Your task to perform on an android device: toggle wifi Image 0: 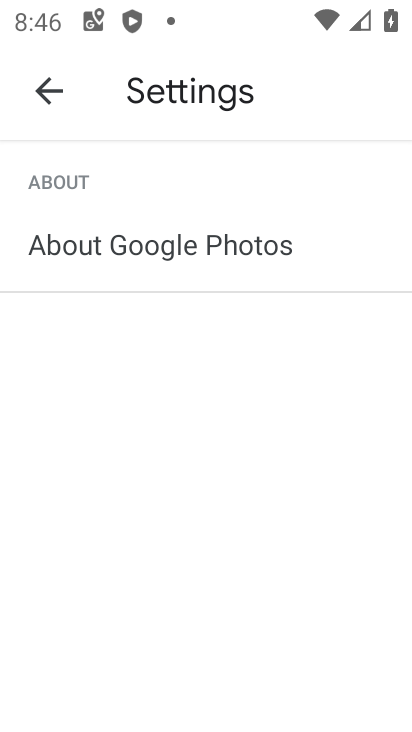
Step 0: press home button
Your task to perform on an android device: toggle wifi Image 1: 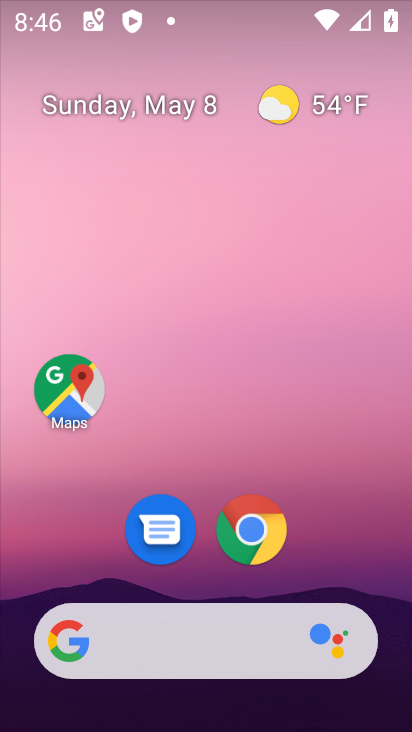
Step 1: drag from (348, 339) to (348, 44)
Your task to perform on an android device: toggle wifi Image 2: 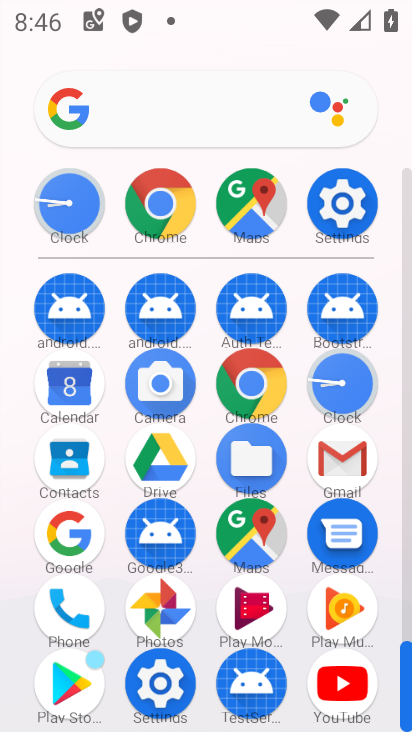
Step 2: click (352, 208)
Your task to perform on an android device: toggle wifi Image 3: 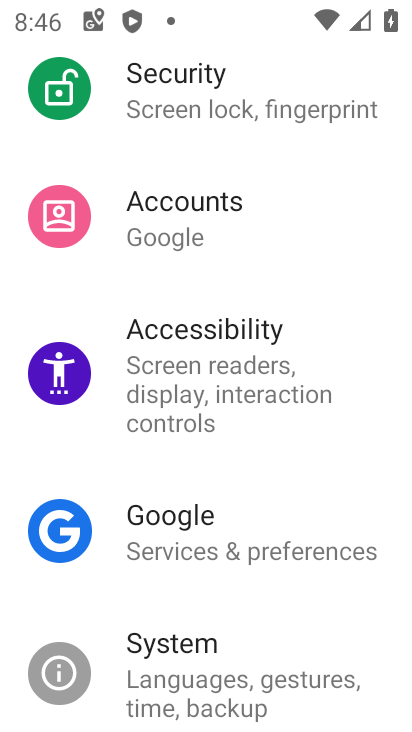
Step 3: drag from (352, 208) to (312, 599)
Your task to perform on an android device: toggle wifi Image 4: 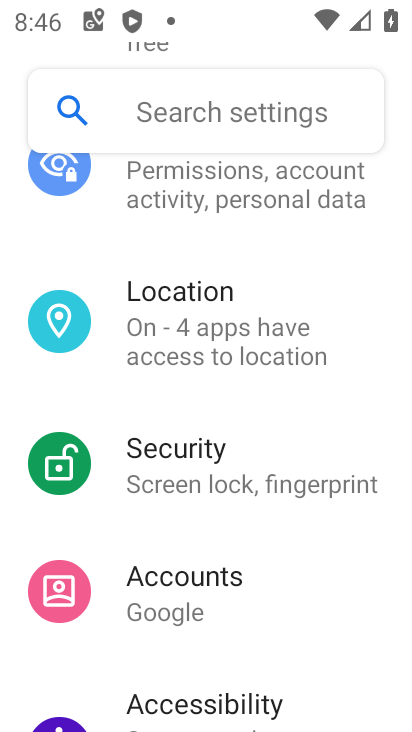
Step 4: drag from (300, 277) to (317, 582)
Your task to perform on an android device: toggle wifi Image 5: 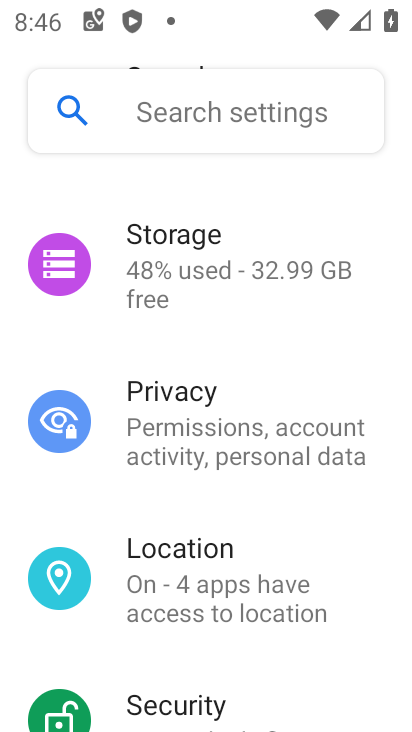
Step 5: drag from (314, 358) to (323, 693)
Your task to perform on an android device: toggle wifi Image 6: 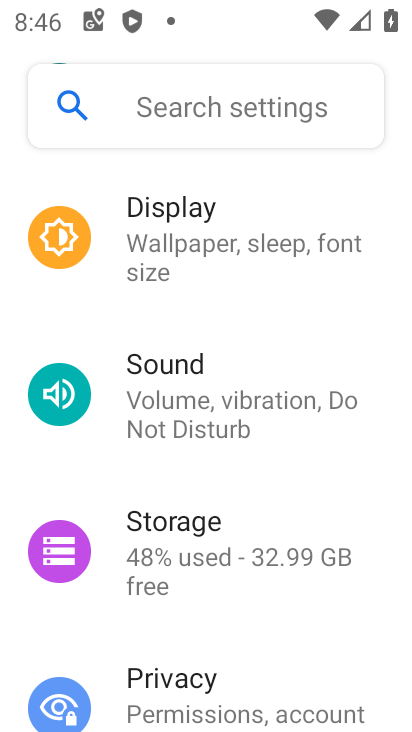
Step 6: drag from (333, 354) to (253, 652)
Your task to perform on an android device: toggle wifi Image 7: 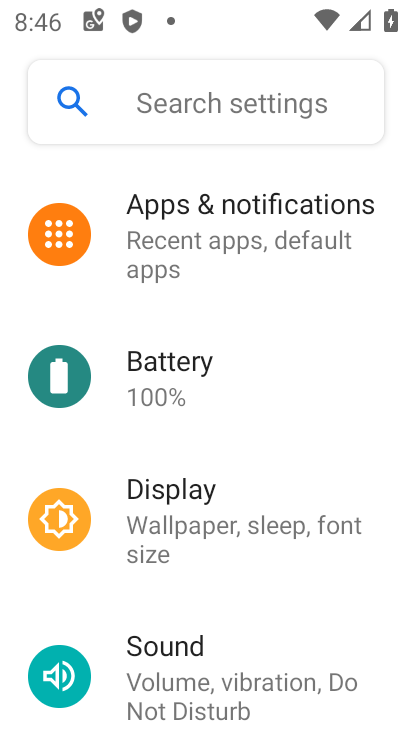
Step 7: drag from (310, 340) to (247, 612)
Your task to perform on an android device: toggle wifi Image 8: 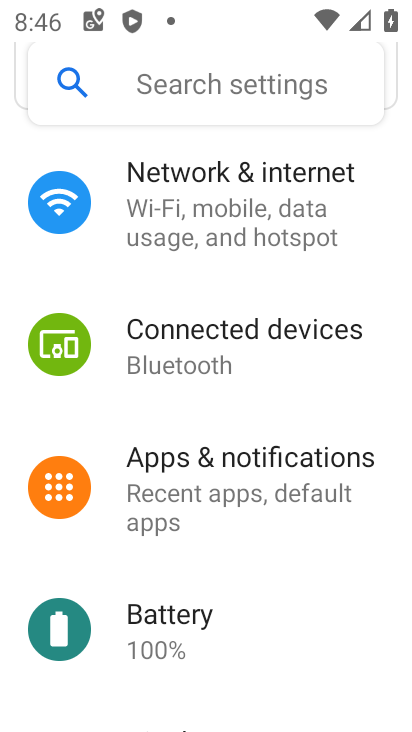
Step 8: click (305, 216)
Your task to perform on an android device: toggle wifi Image 9: 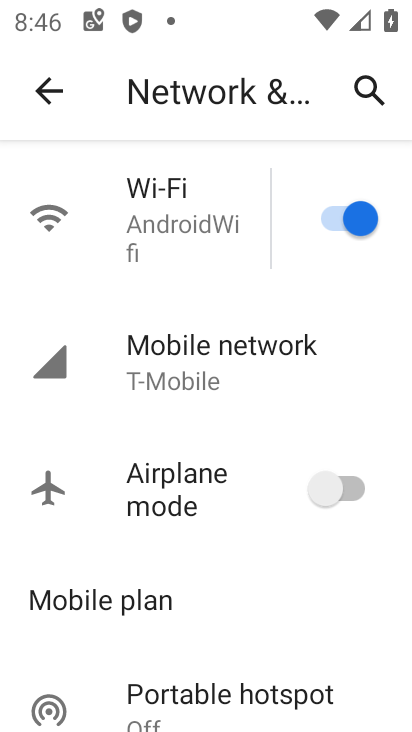
Step 9: click (327, 217)
Your task to perform on an android device: toggle wifi Image 10: 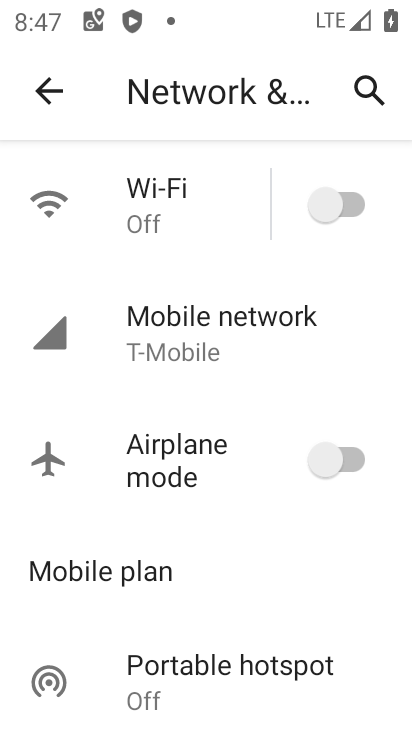
Step 10: task complete